Your task to perform on an android device: turn pop-ups off in chrome Image 0: 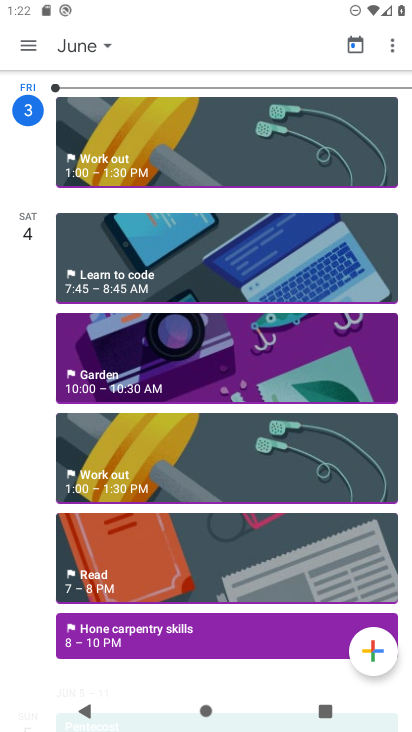
Step 0: press back button
Your task to perform on an android device: turn pop-ups off in chrome Image 1: 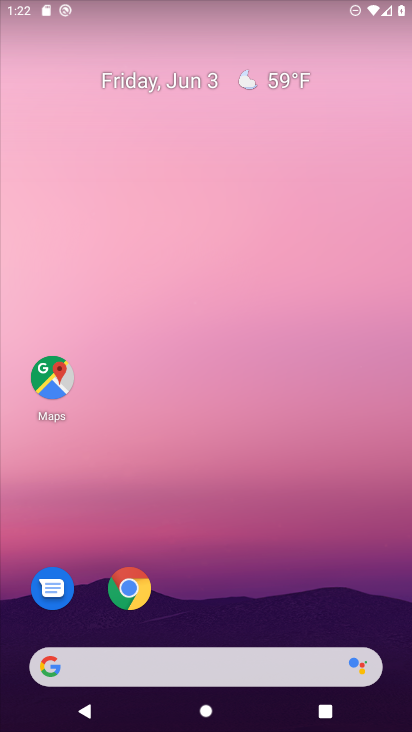
Step 1: drag from (250, 378) to (198, 15)
Your task to perform on an android device: turn pop-ups off in chrome Image 2: 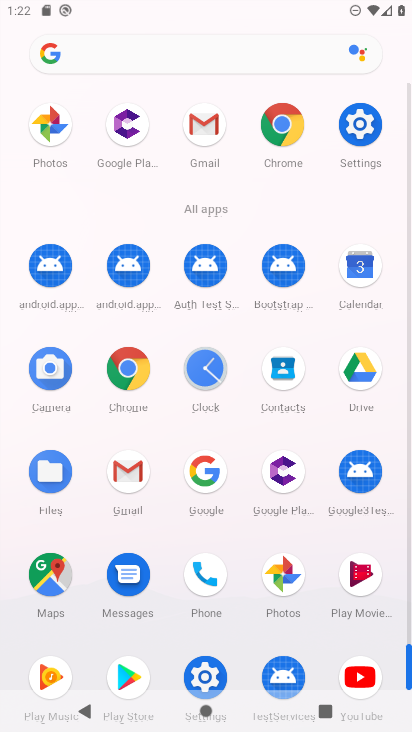
Step 2: click (284, 117)
Your task to perform on an android device: turn pop-ups off in chrome Image 3: 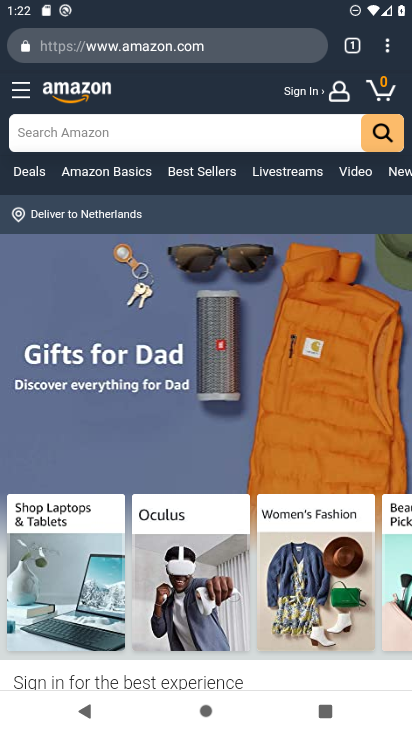
Step 3: drag from (388, 45) to (242, 547)
Your task to perform on an android device: turn pop-ups off in chrome Image 4: 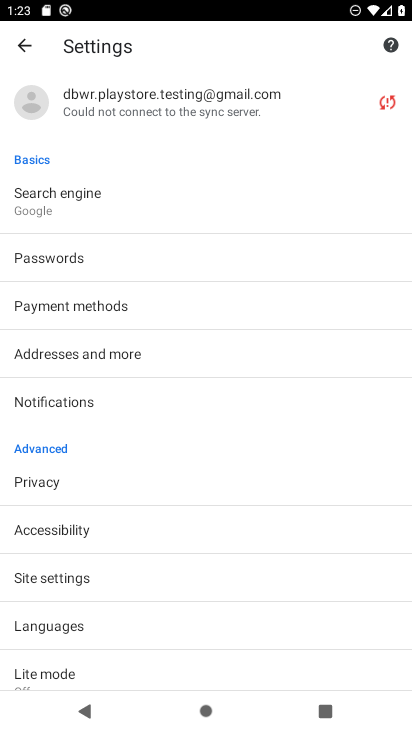
Step 4: drag from (220, 516) to (219, 221)
Your task to perform on an android device: turn pop-ups off in chrome Image 5: 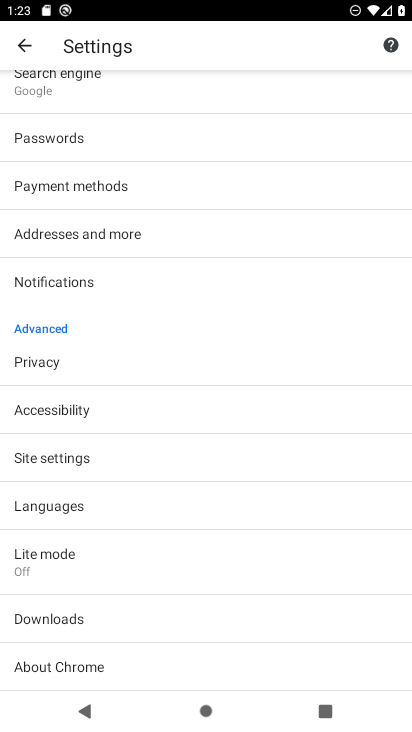
Step 5: click (72, 449)
Your task to perform on an android device: turn pop-ups off in chrome Image 6: 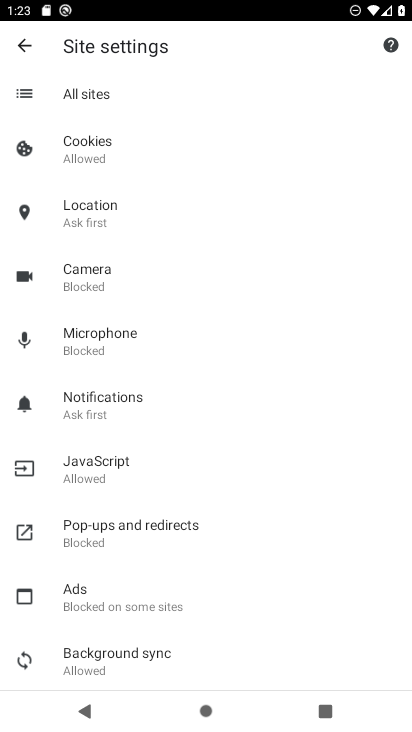
Step 6: drag from (184, 540) to (243, 322)
Your task to perform on an android device: turn pop-ups off in chrome Image 7: 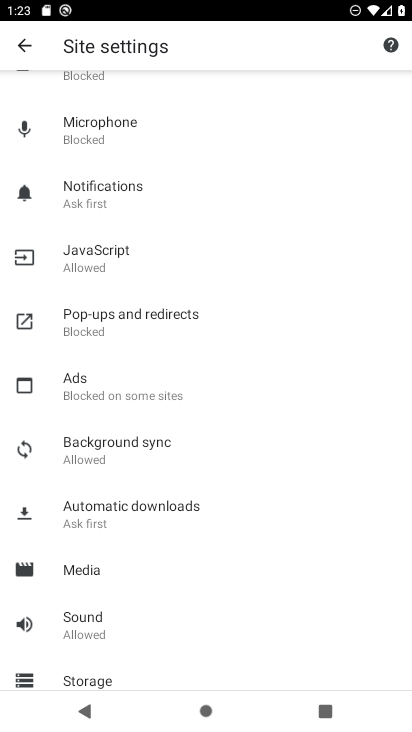
Step 7: click (119, 323)
Your task to perform on an android device: turn pop-ups off in chrome Image 8: 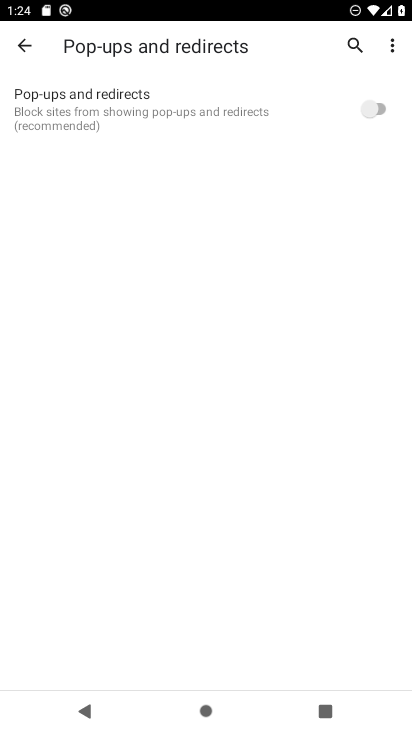
Step 8: task complete